Your task to perform on an android device: change the upload size in google photos Image 0: 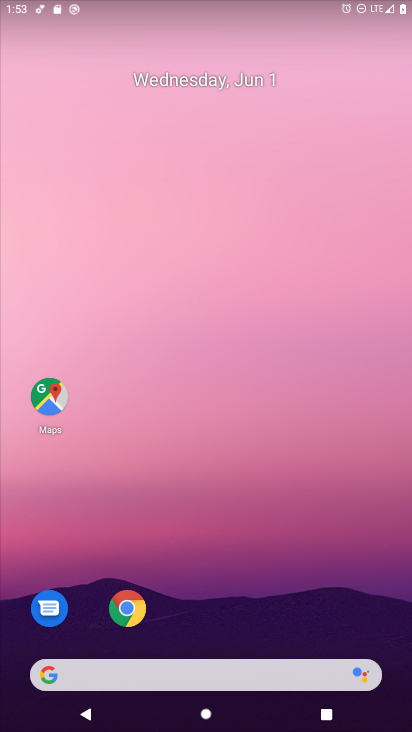
Step 0: drag from (189, 625) to (174, 122)
Your task to perform on an android device: change the upload size in google photos Image 1: 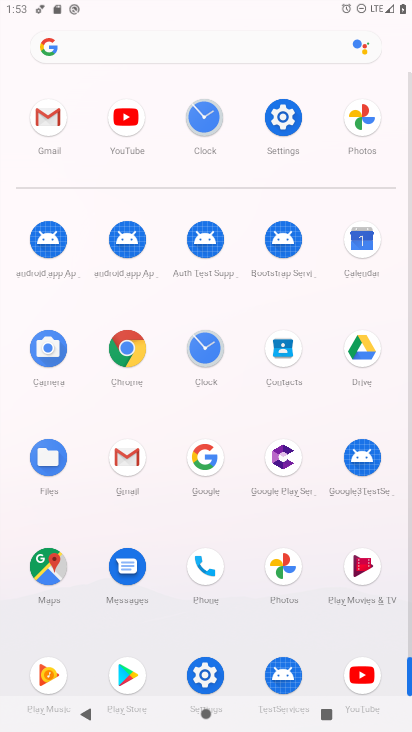
Step 1: click (292, 578)
Your task to perform on an android device: change the upload size in google photos Image 2: 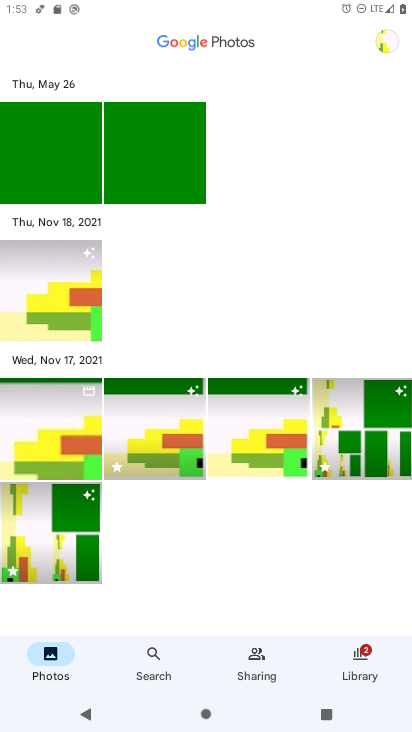
Step 2: click (382, 46)
Your task to perform on an android device: change the upload size in google photos Image 3: 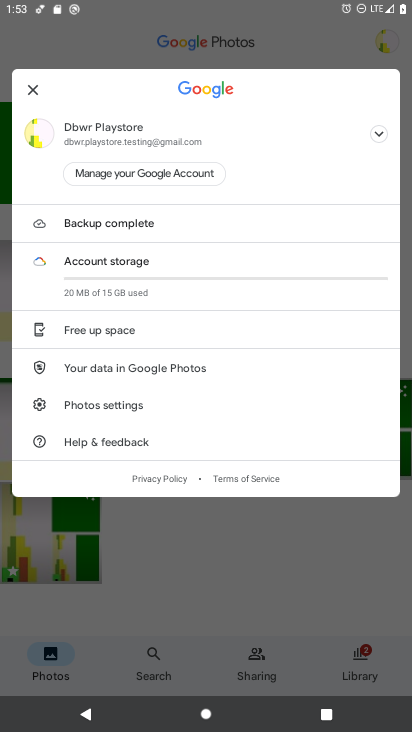
Step 3: click (109, 397)
Your task to perform on an android device: change the upload size in google photos Image 4: 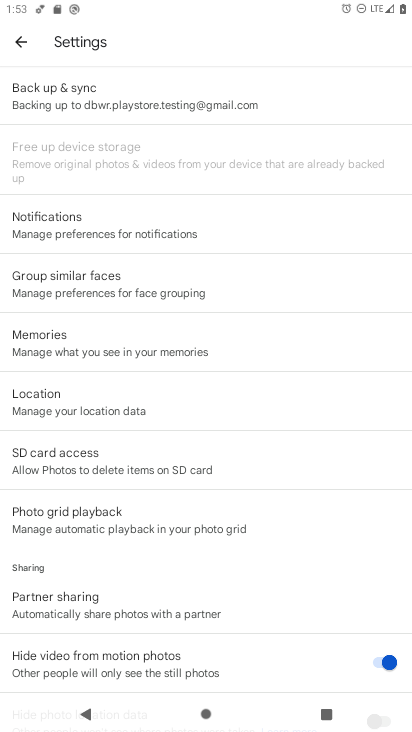
Step 4: click (65, 99)
Your task to perform on an android device: change the upload size in google photos Image 5: 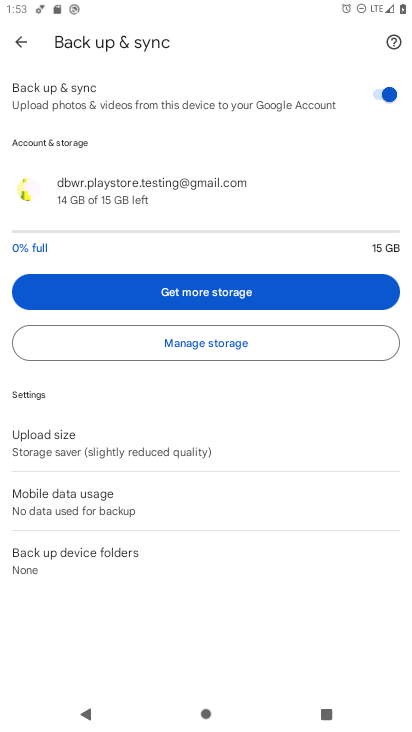
Step 5: click (41, 438)
Your task to perform on an android device: change the upload size in google photos Image 6: 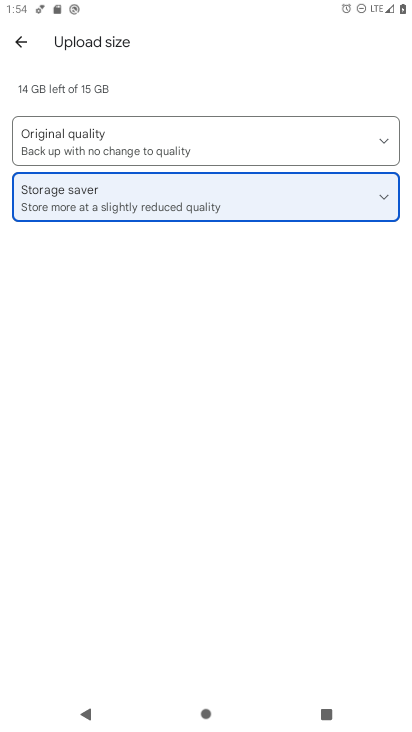
Step 6: click (168, 131)
Your task to perform on an android device: change the upload size in google photos Image 7: 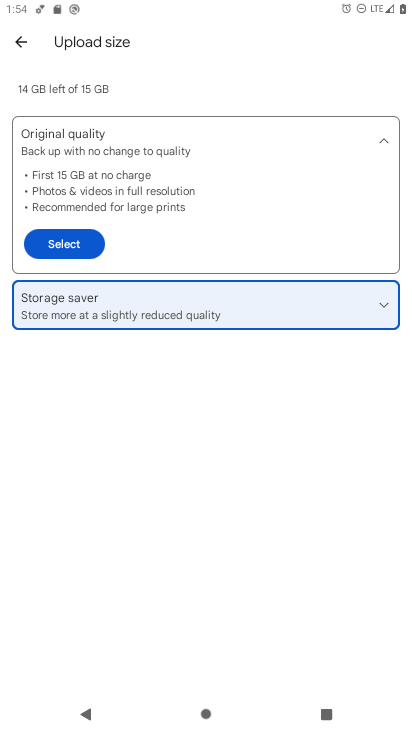
Step 7: click (69, 259)
Your task to perform on an android device: change the upload size in google photos Image 8: 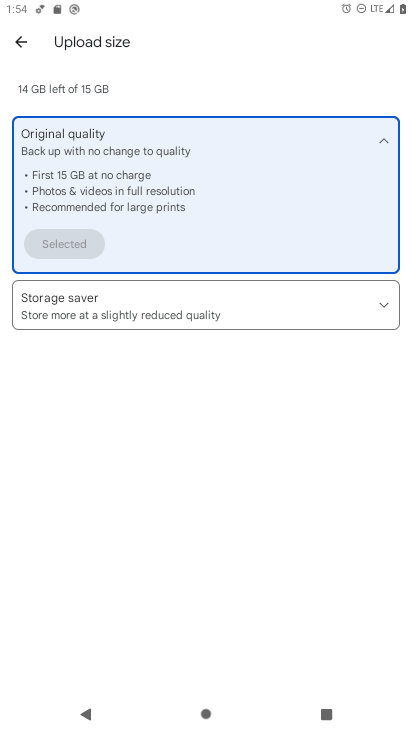
Step 8: task complete